Your task to perform on an android device: Open Google Image 0: 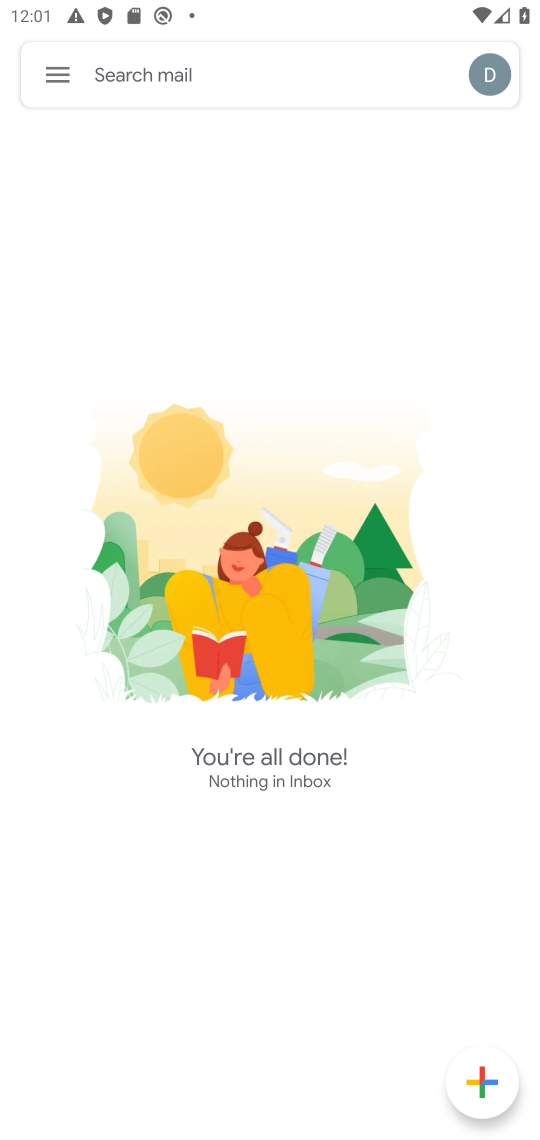
Step 0: press home button
Your task to perform on an android device: Open Google Image 1: 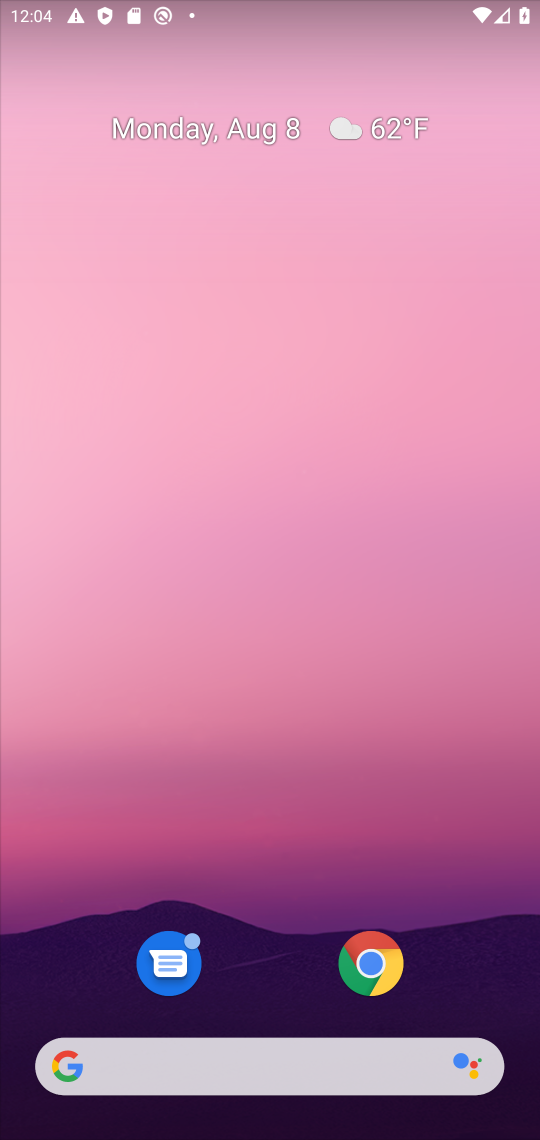
Step 1: drag from (463, 963) to (226, 65)
Your task to perform on an android device: Open Google Image 2: 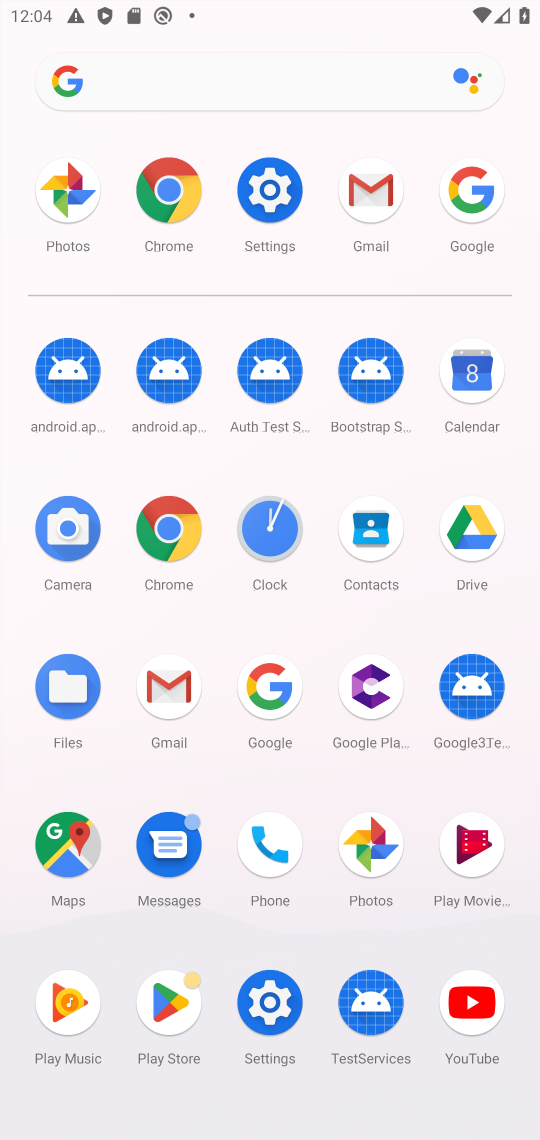
Step 2: click (261, 690)
Your task to perform on an android device: Open Google Image 3: 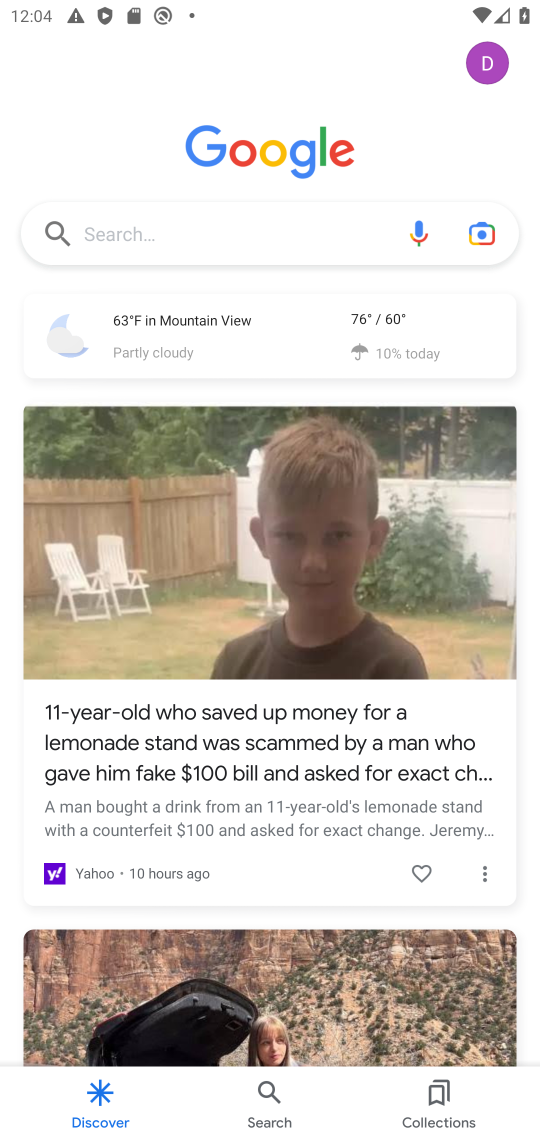
Step 3: task complete